Your task to perform on an android device: change the clock style Image 0: 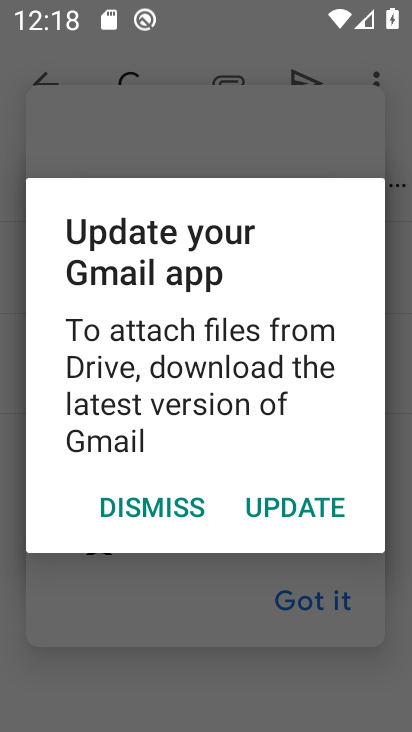
Step 0: press home button
Your task to perform on an android device: change the clock style Image 1: 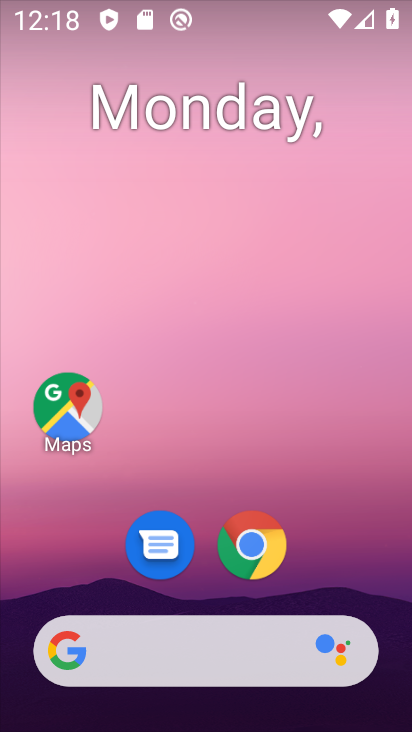
Step 1: drag from (308, 562) to (333, 65)
Your task to perform on an android device: change the clock style Image 2: 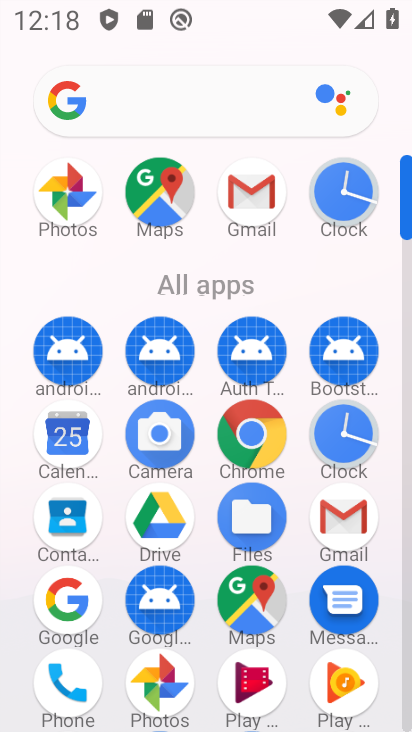
Step 2: click (333, 195)
Your task to perform on an android device: change the clock style Image 3: 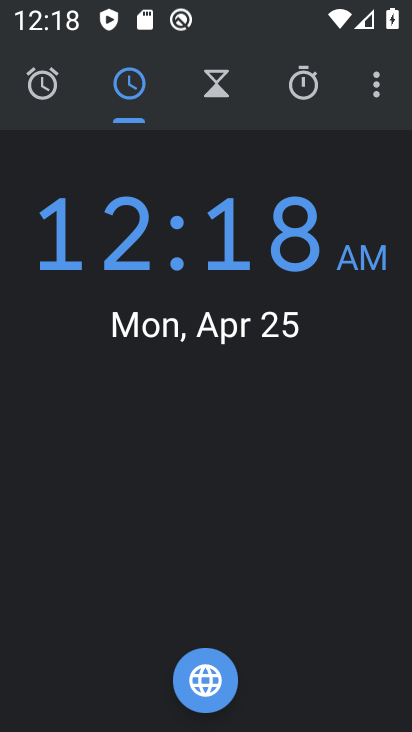
Step 3: click (381, 77)
Your task to perform on an android device: change the clock style Image 4: 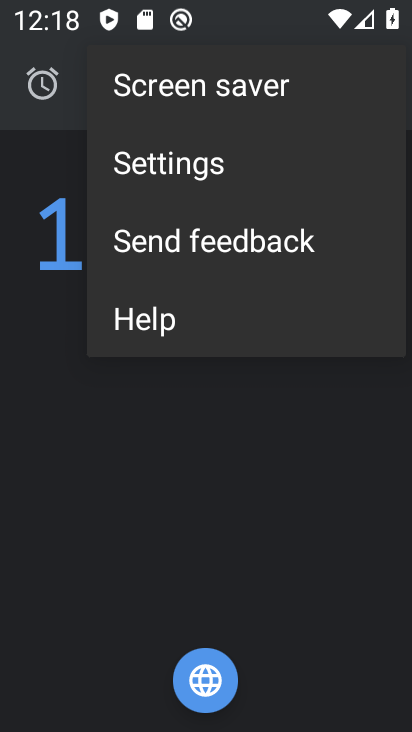
Step 4: click (200, 170)
Your task to perform on an android device: change the clock style Image 5: 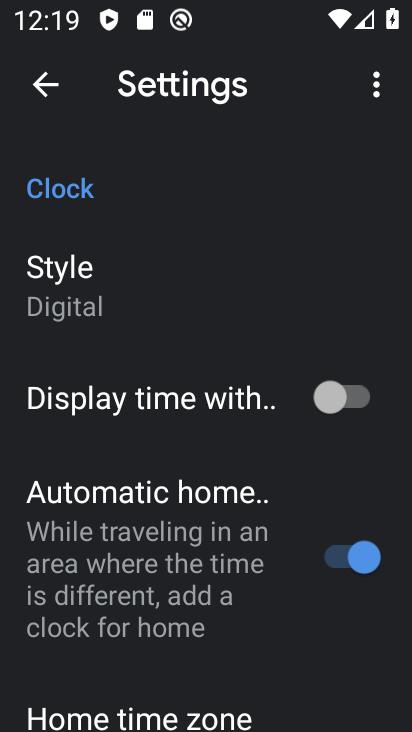
Step 5: click (30, 316)
Your task to perform on an android device: change the clock style Image 6: 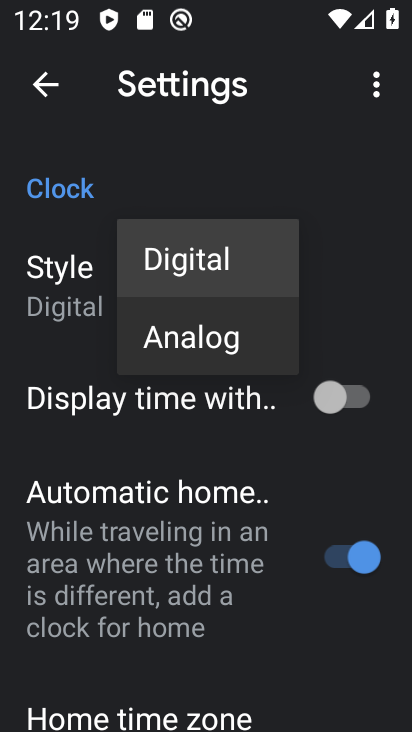
Step 6: click (164, 337)
Your task to perform on an android device: change the clock style Image 7: 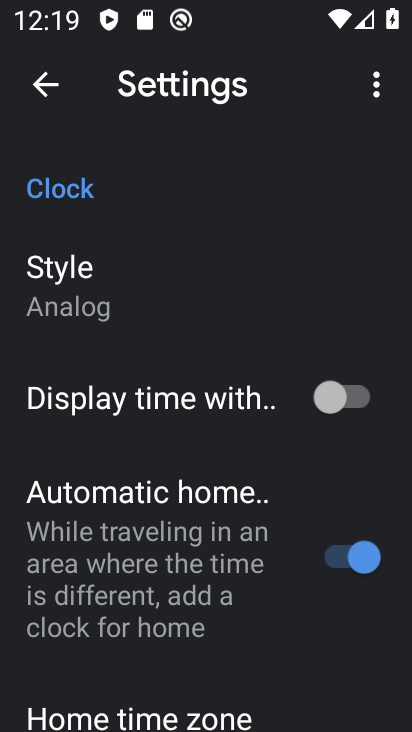
Step 7: task complete